Your task to perform on an android device: Go to calendar. Show me events next week Image 0: 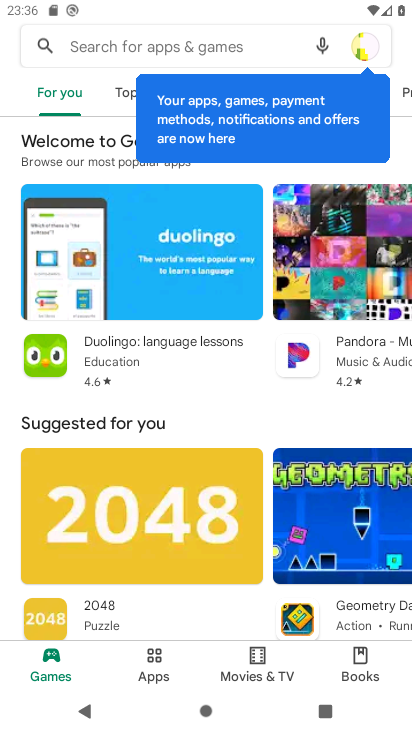
Step 0: press home button
Your task to perform on an android device: Go to calendar. Show me events next week Image 1: 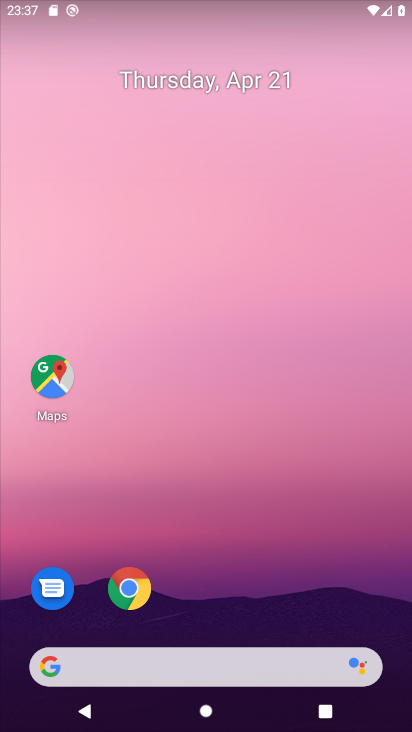
Step 1: drag from (225, 481) to (256, 114)
Your task to perform on an android device: Go to calendar. Show me events next week Image 2: 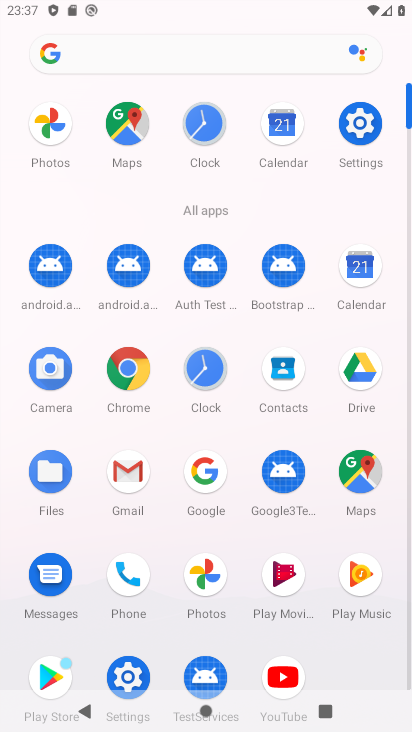
Step 2: click (359, 270)
Your task to perform on an android device: Go to calendar. Show me events next week Image 3: 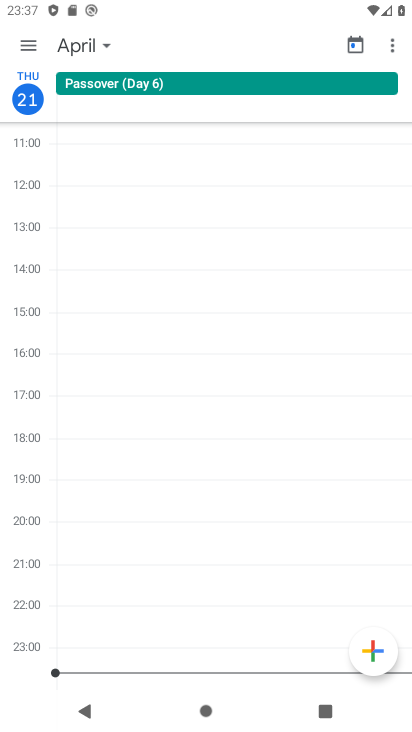
Step 3: click (24, 50)
Your task to perform on an android device: Go to calendar. Show me events next week Image 4: 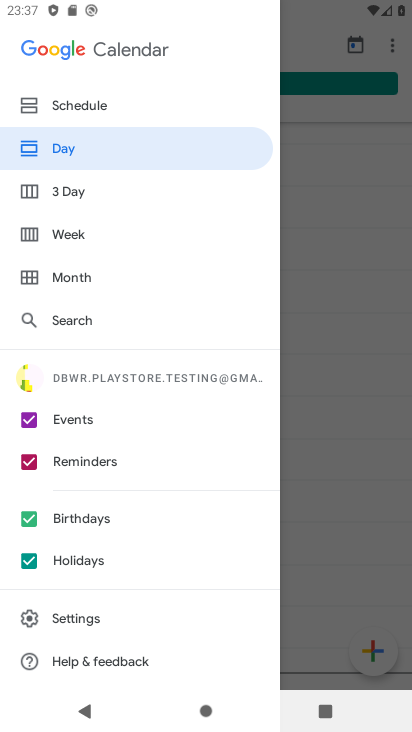
Step 4: click (28, 554)
Your task to perform on an android device: Go to calendar. Show me events next week Image 5: 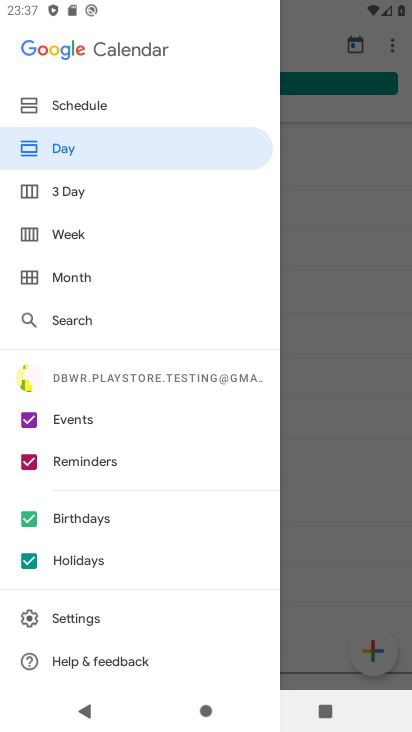
Step 5: click (27, 519)
Your task to perform on an android device: Go to calendar. Show me events next week Image 6: 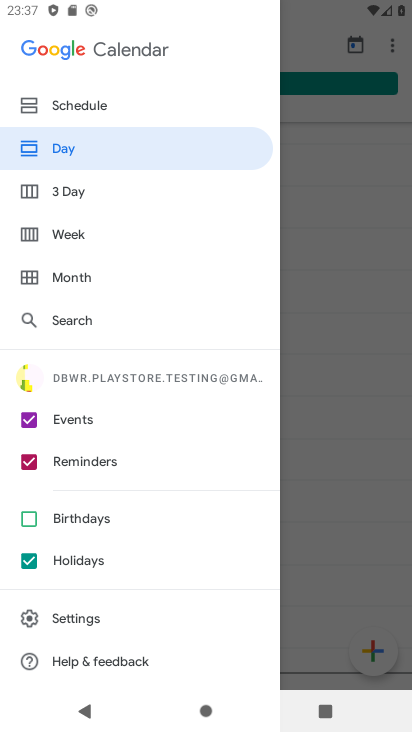
Step 6: click (29, 456)
Your task to perform on an android device: Go to calendar. Show me events next week Image 7: 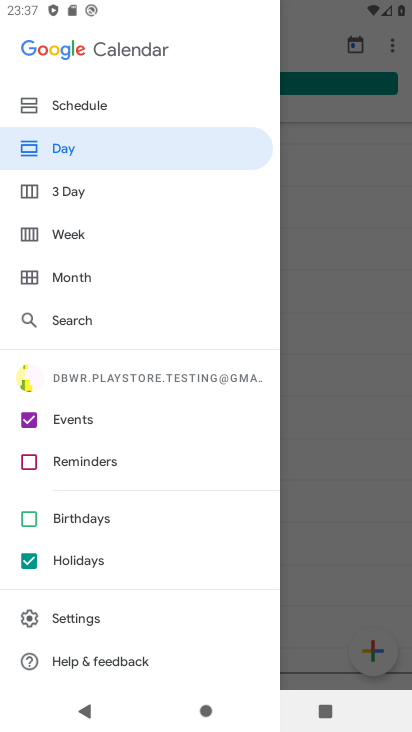
Step 7: click (26, 567)
Your task to perform on an android device: Go to calendar. Show me events next week Image 8: 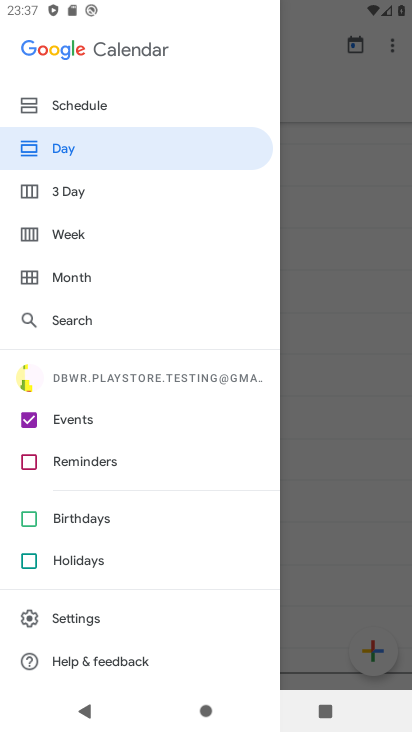
Step 8: click (87, 239)
Your task to perform on an android device: Go to calendar. Show me events next week Image 9: 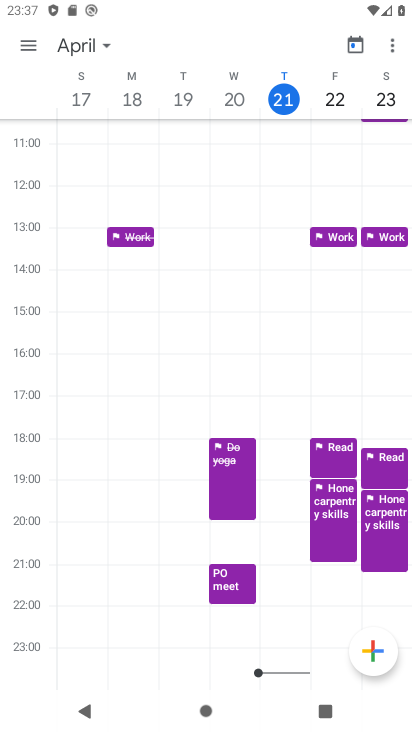
Step 9: task complete